Your task to perform on an android device: Do I have any events this weekend? Image 0: 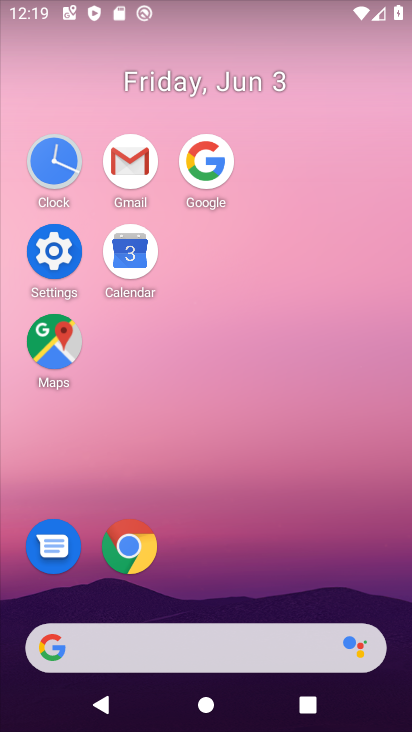
Step 0: click (143, 258)
Your task to perform on an android device: Do I have any events this weekend? Image 1: 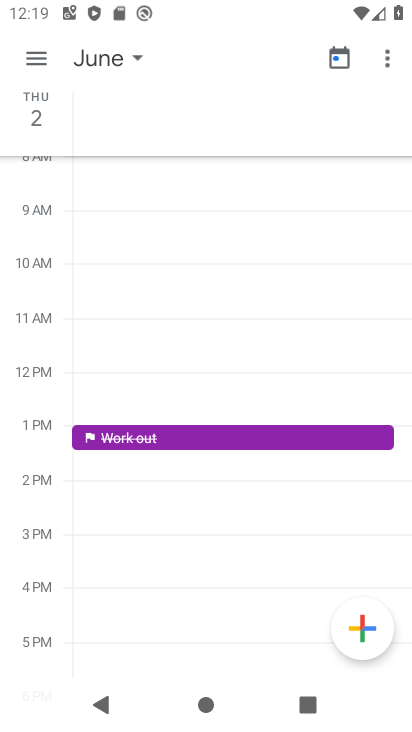
Step 1: click (36, 69)
Your task to perform on an android device: Do I have any events this weekend? Image 2: 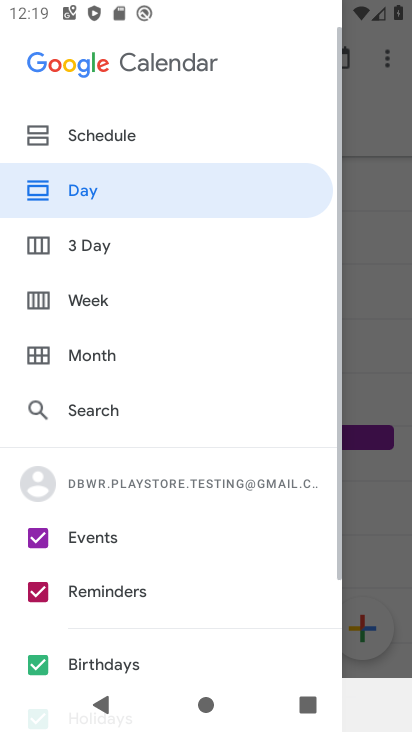
Step 2: click (115, 301)
Your task to perform on an android device: Do I have any events this weekend? Image 3: 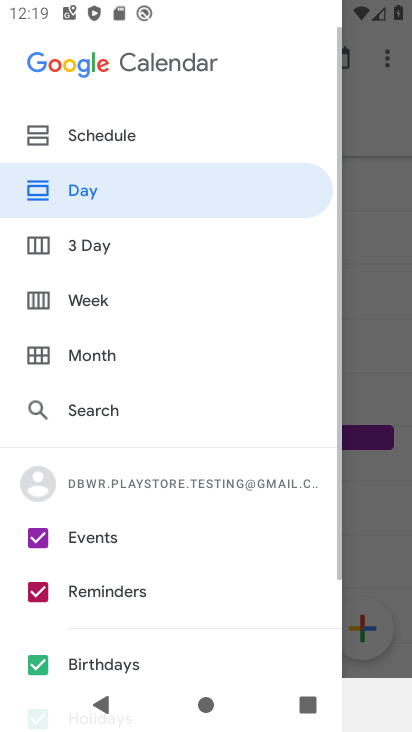
Step 3: click (121, 298)
Your task to perform on an android device: Do I have any events this weekend? Image 4: 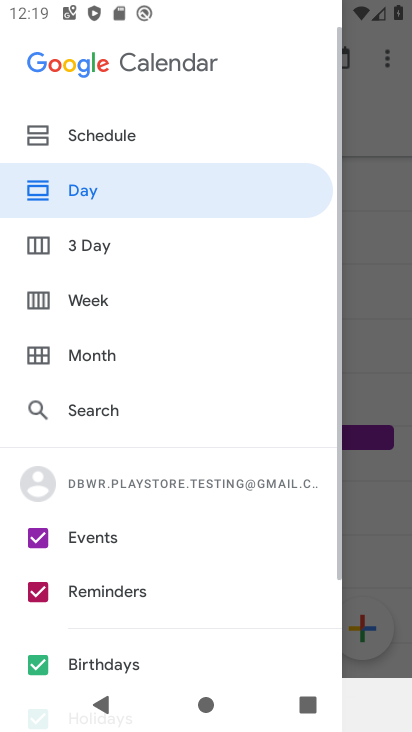
Step 4: click (86, 299)
Your task to perform on an android device: Do I have any events this weekend? Image 5: 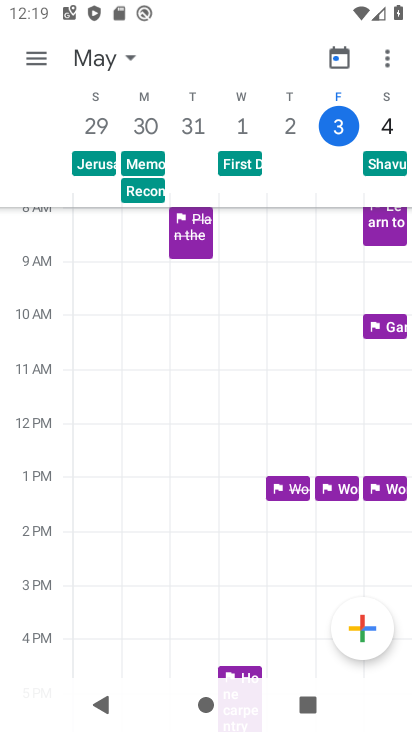
Step 5: task complete